Your task to perform on an android device: Open Amazon Image 0: 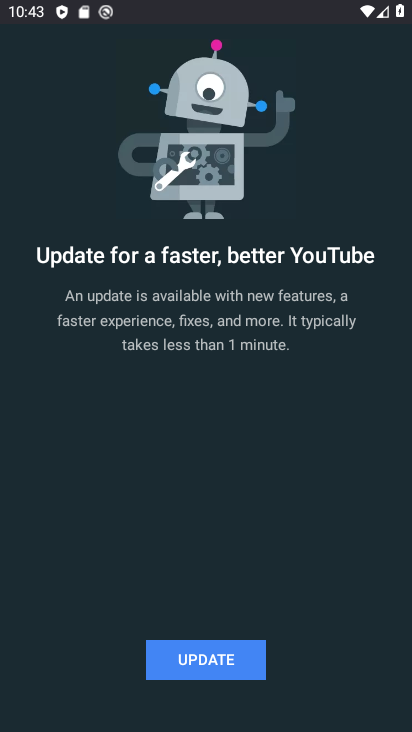
Step 0: press home button
Your task to perform on an android device: Open Amazon Image 1: 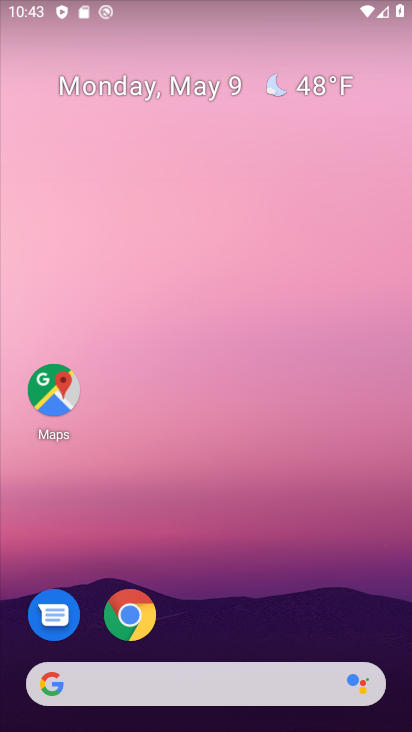
Step 1: click (134, 615)
Your task to perform on an android device: Open Amazon Image 2: 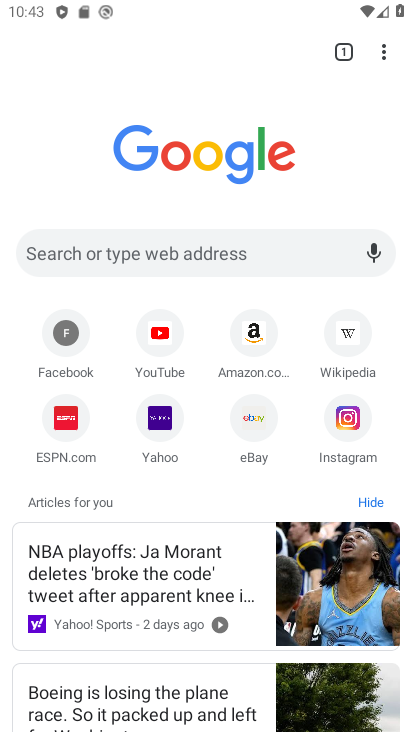
Step 2: click (257, 322)
Your task to perform on an android device: Open Amazon Image 3: 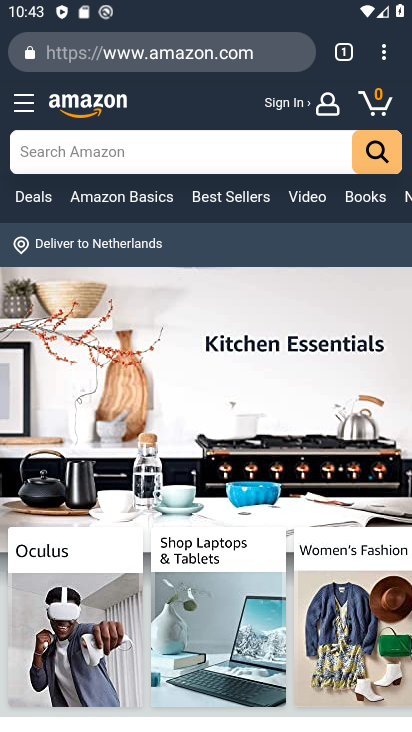
Step 3: task complete